Your task to perform on an android device: What's the weather going to be this weekend? Image 0: 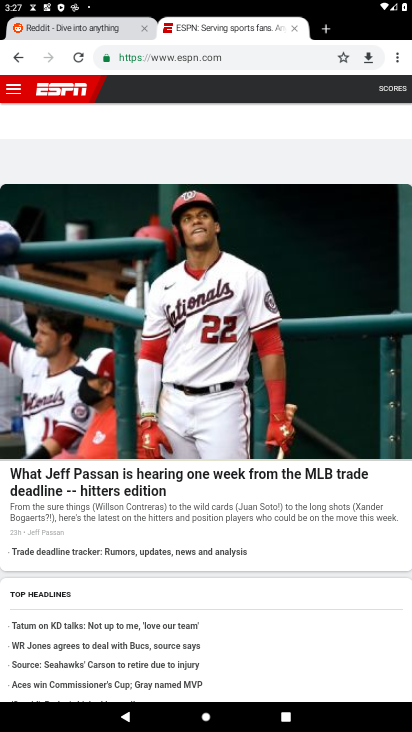
Step 0: press home button
Your task to perform on an android device: What's the weather going to be this weekend? Image 1: 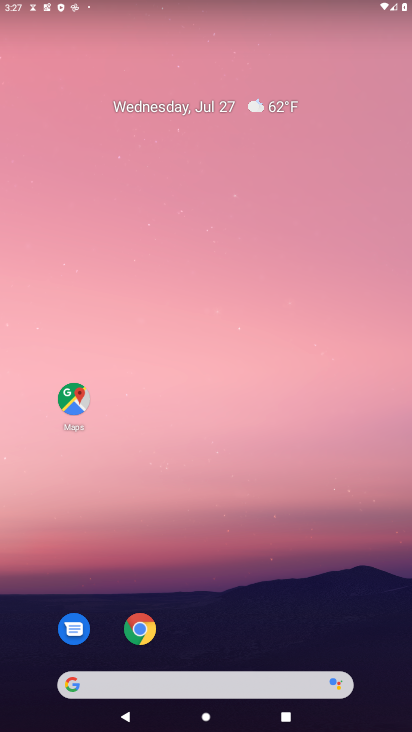
Step 1: drag from (167, 684) to (259, 92)
Your task to perform on an android device: What's the weather going to be this weekend? Image 2: 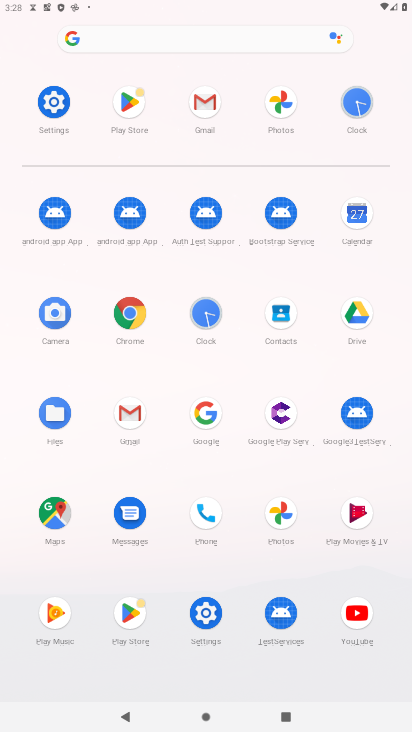
Step 2: click (203, 413)
Your task to perform on an android device: What's the weather going to be this weekend? Image 3: 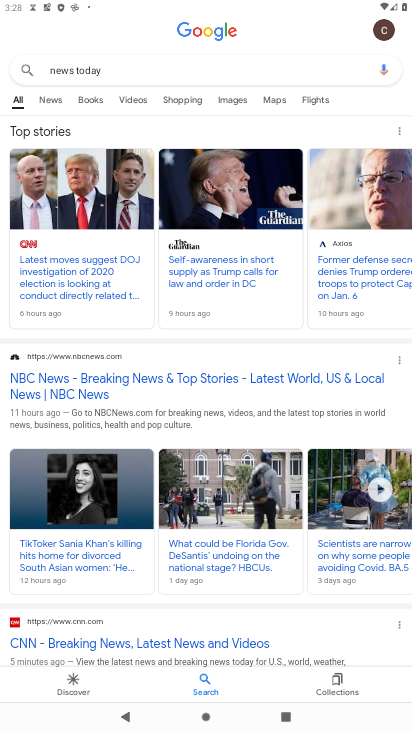
Step 3: click (158, 72)
Your task to perform on an android device: What's the weather going to be this weekend? Image 4: 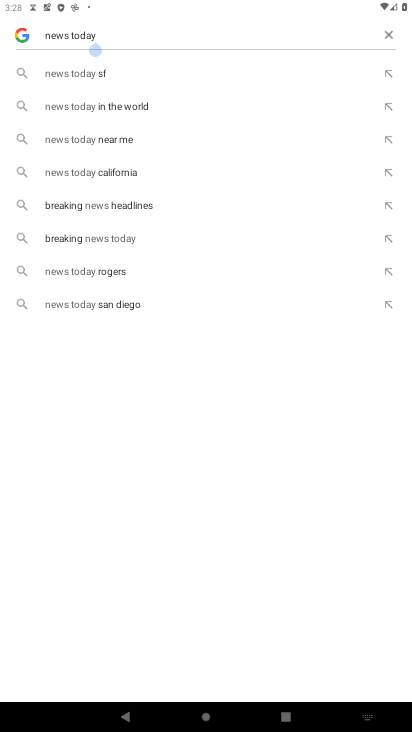
Step 4: click (391, 36)
Your task to perform on an android device: What's the weather going to be this weekend? Image 5: 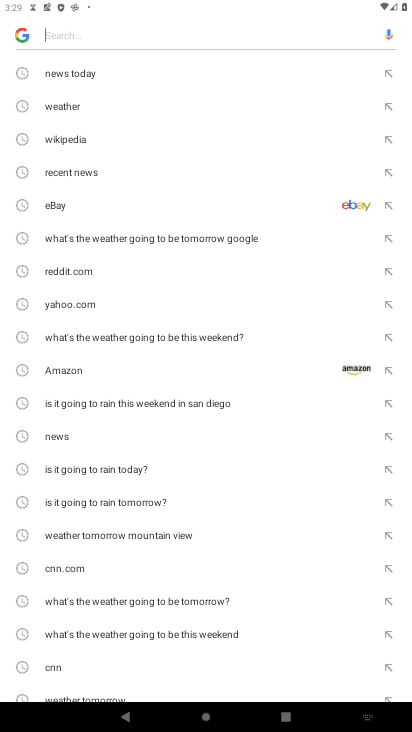
Step 5: type "What's the weather going to be this weekend?"
Your task to perform on an android device: What's the weather going to be this weekend? Image 6: 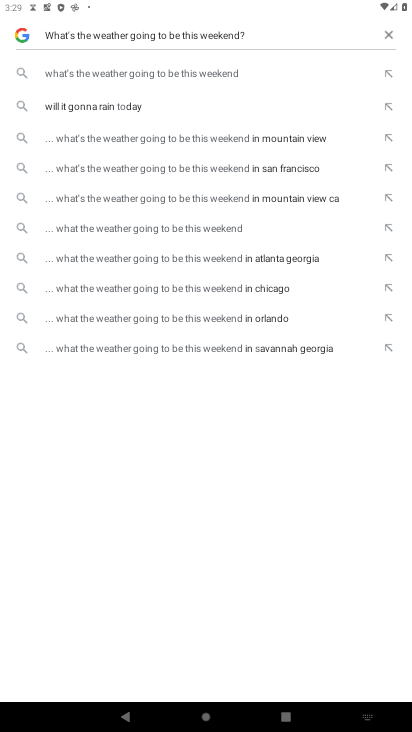
Step 6: click (195, 81)
Your task to perform on an android device: What's the weather going to be this weekend? Image 7: 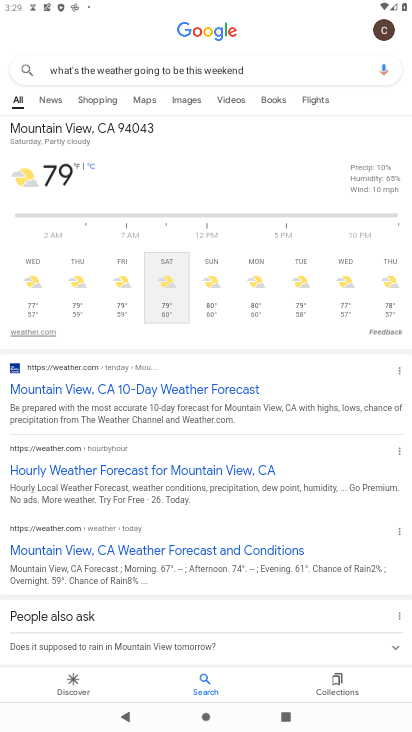
Step 7: task complete